Your task to perform on an android device: Open Android settings Image 0: 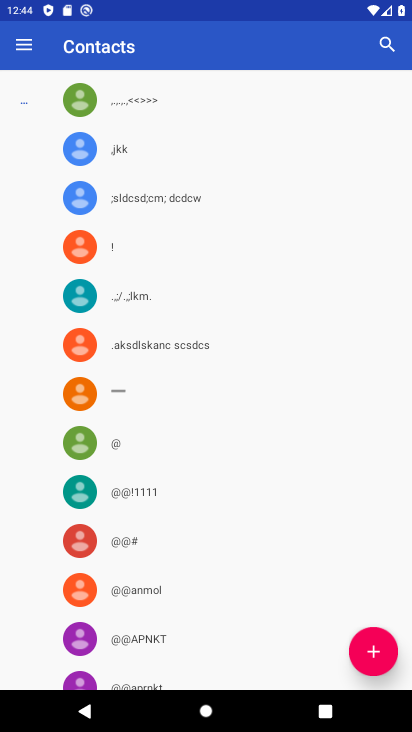
Step 0: press home button
Your task to perform on an android device: Open Android settings Image 1: 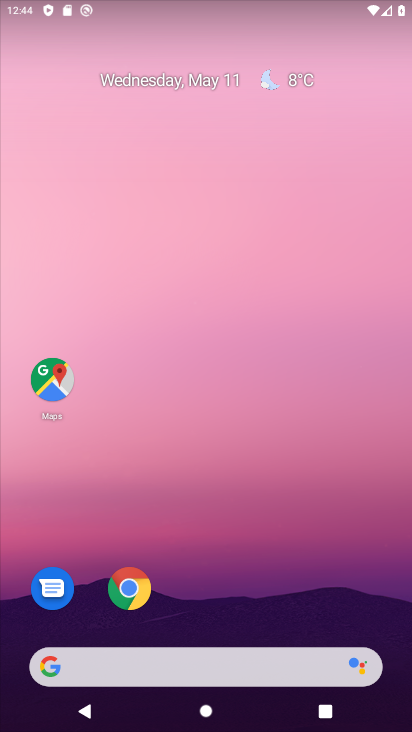
Step 1: drag from (231, 583) to (341, 0)
Your task to perform on an android device: Open Android settings Image 2: 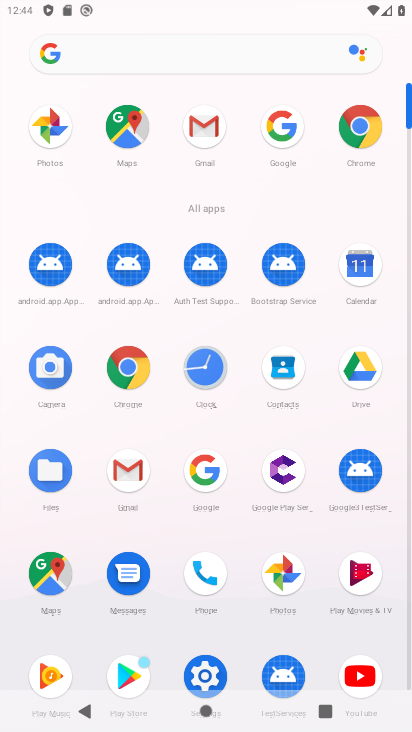
Step 2: click (204, 659)
Your task to perform on an android device: Open Android settings Image 3: 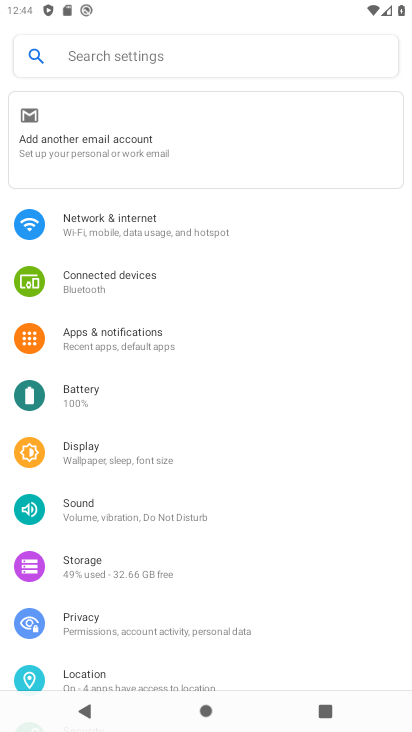
Step 3: drag from (156, 615) to (222, 205)
Your task to perform on an android device: Open Android settings Image 4: 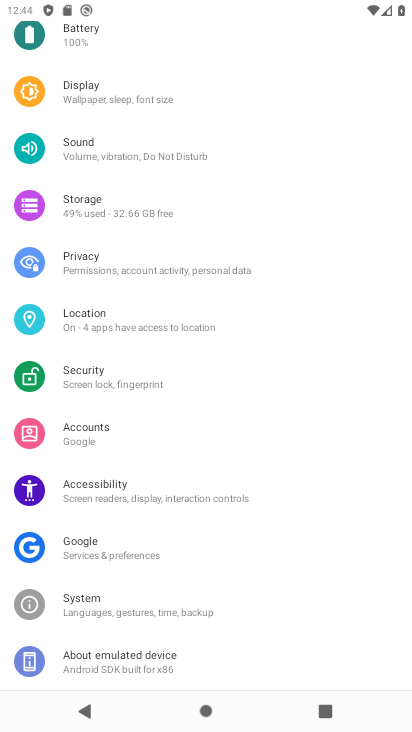
Step 4: click (58, 609)
Your task to perform on an android device: Open Android settings Image 5: 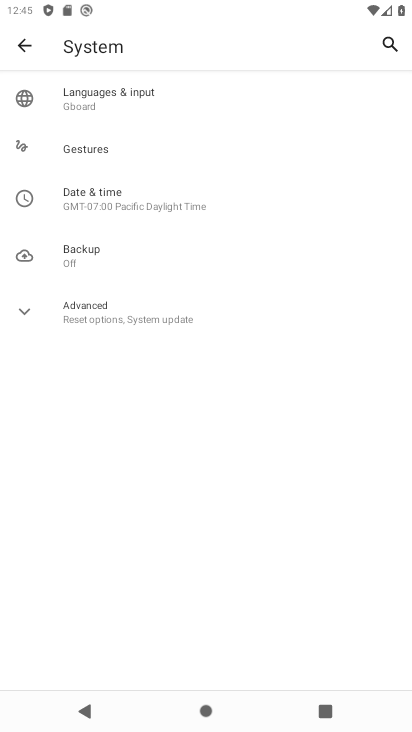
Step 5: task complete